Your task to perform on an android device: set the timer Image 0: 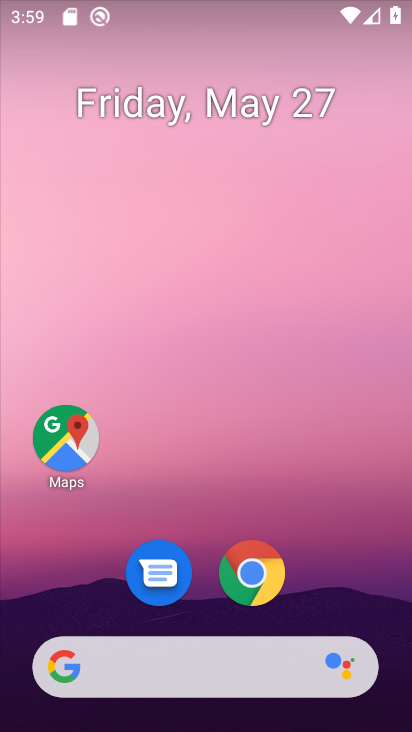
Step 0: drag from (234, 496) to (210, 1)
Your task to perform on an android device: set the timer Image 1: 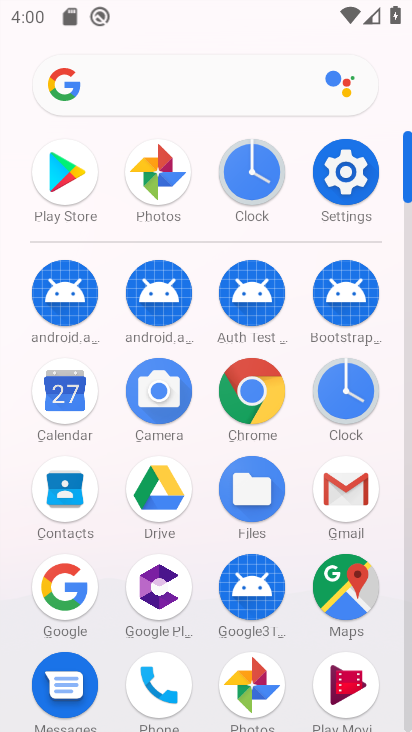
Step 1: click (274, 165)
Your task to perform on an android device: set the timer Image 2: 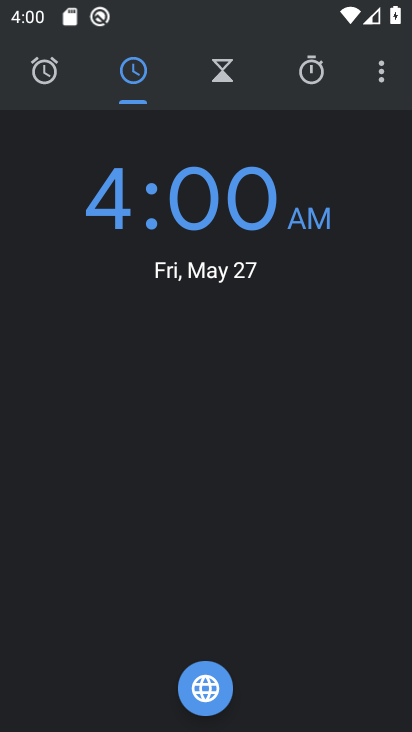
Step 2: click (232, 79)
Your task to perform on an android device: set the timer Image 3: 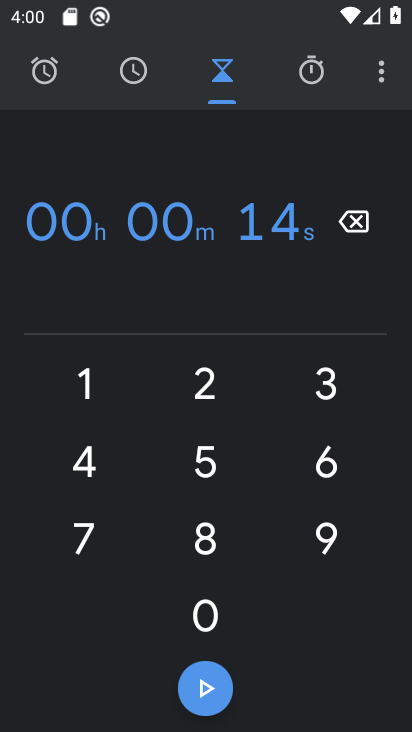
Step 3: click (360, 226)
Your task to perform on an android device: set the timer Image 4: 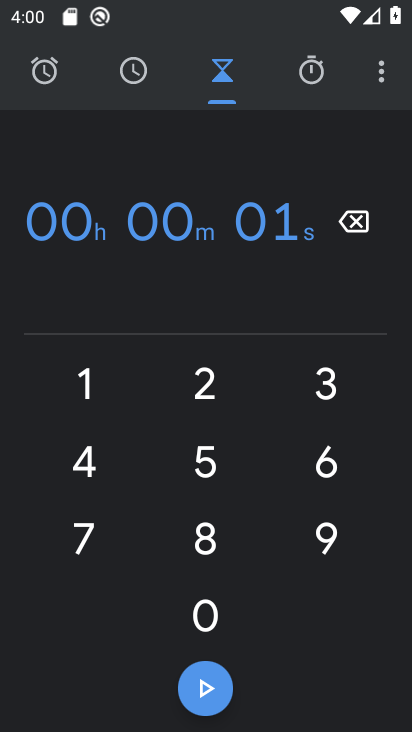
Step 4: click (360, 226)
Your task to perform on an android device: set the timer Image 5: 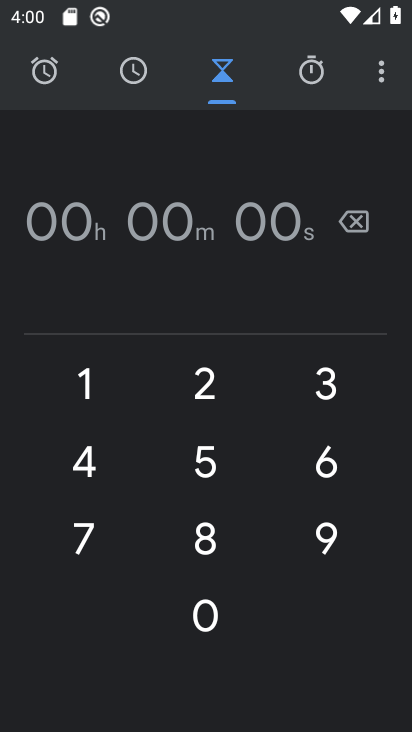
Step 5: click (210, 388)
Your task to perform on an android device: set the timer Image 6: 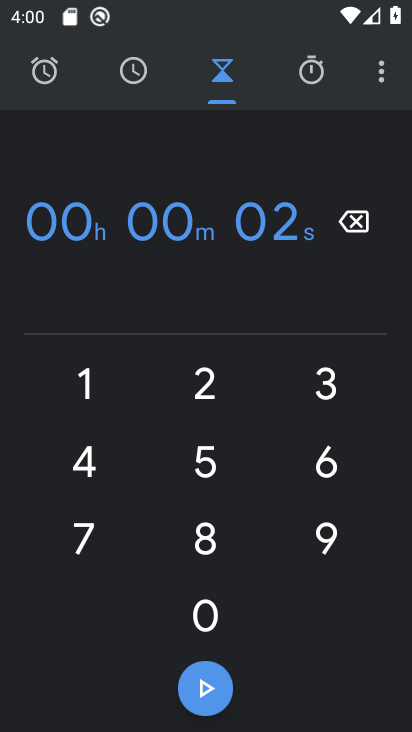
Step 6: click (213, 473)
Your task to perform on an android device: set the timer Image 7: 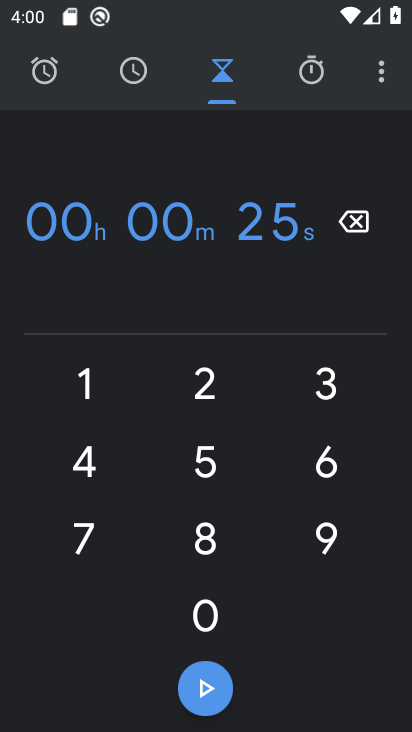
Step 7: task complete